Your task to perform on an android device: show emergency info Image 0: 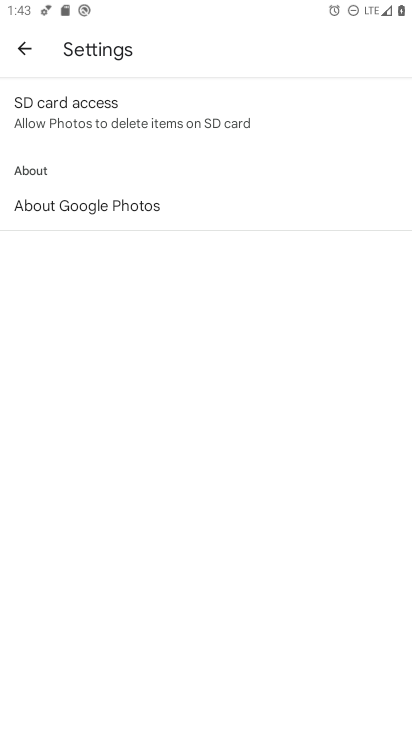
Step 0: press home button
Your task to perform on an android device: show emergency info Image 1: 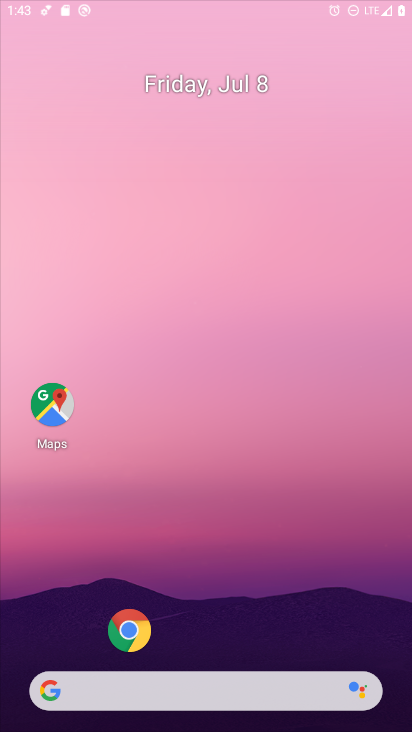
Step 1: drag from (220, 651) to (295, 101)
Your task to perform on an android device: show emergency info Image 2: 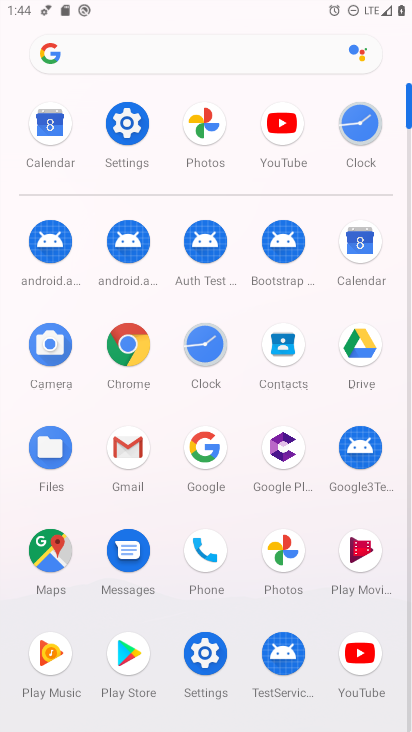
Step 2: press home button
Your task to perform on an android device: show emergency info Image 3: 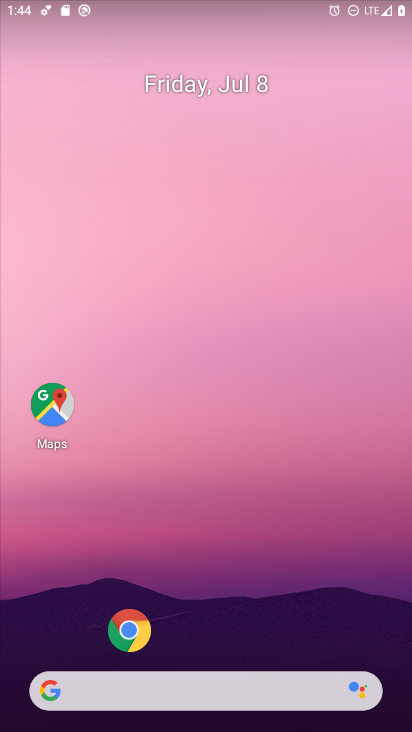
Step 3: drag from (254, 661) to (165, 17)
Your task to perform on an android device: show emergency info Image 4: 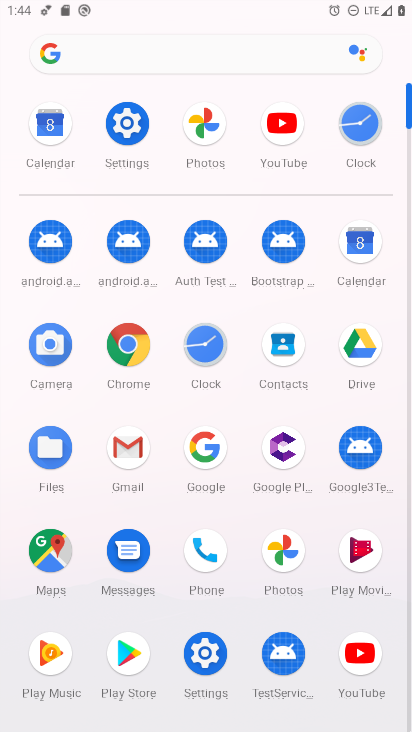
Step 4: click (128, 105)
Your task to perform on an android device: show emergency info Image 5: 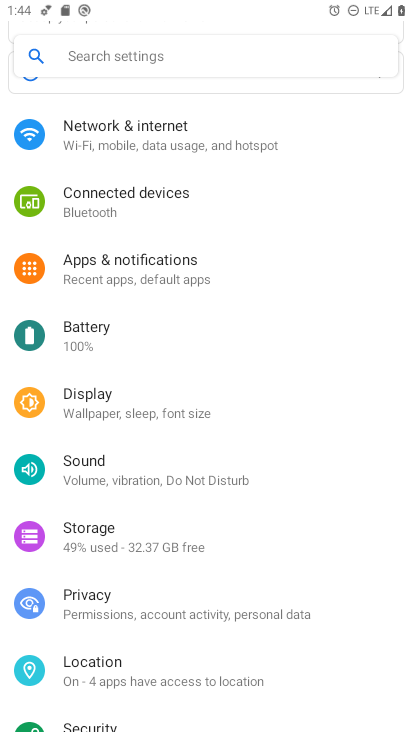
Step 5: drag from (221, 716) to (289, 190)
Your task to perform on an android device: show emergency info Image 6: 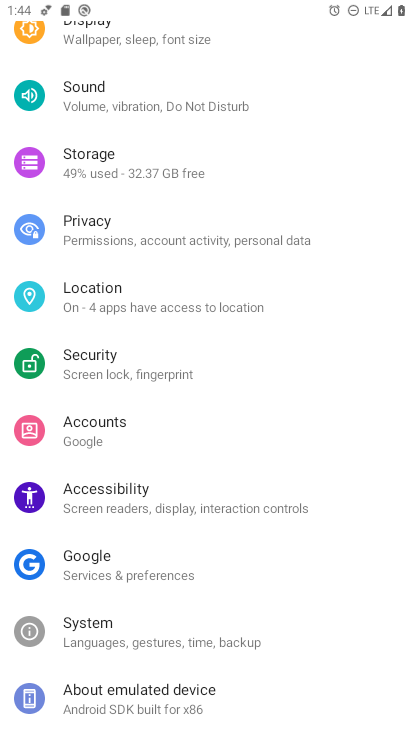
Step 6: click (198, 680)
Your task to perform on an android device: show emergency info Image 7: 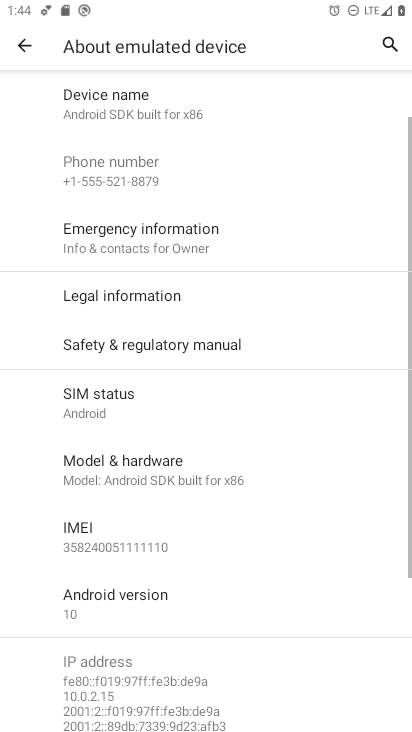
Step 7: click (137, 239)
Your task to perform on an android device: show emergency info Image 8: 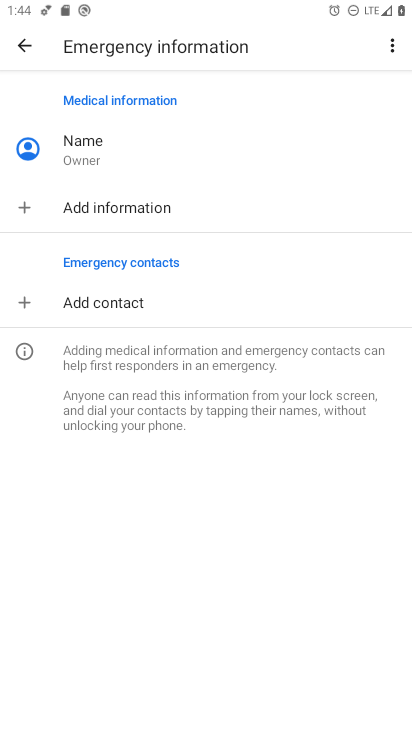
Step 8: task complete